Your task to perform on an android device: What's the weather today? Image 0: 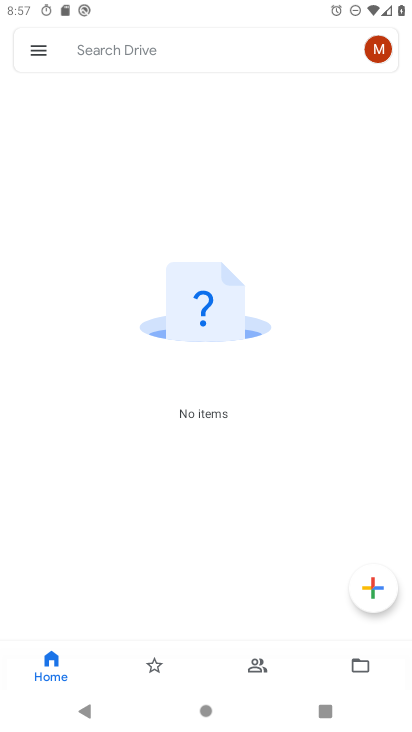
Step 0: press home button
Your task to perform on an android device: What's the weather today? Image 1: 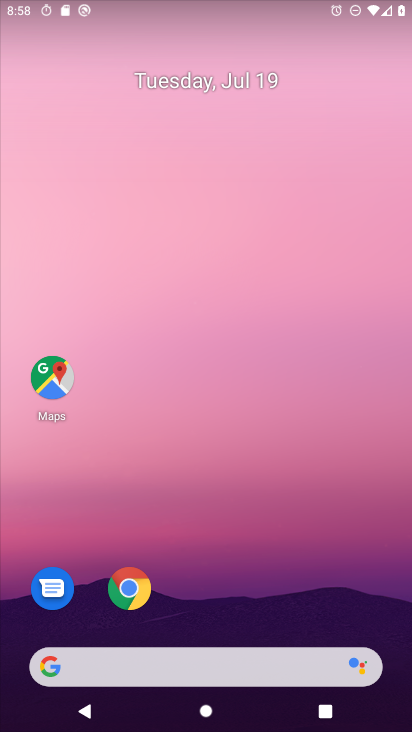
Step 1: drag from (270, 597) to (277, 190)
Your task to perform on an android device: What's the weather today? Image 2: 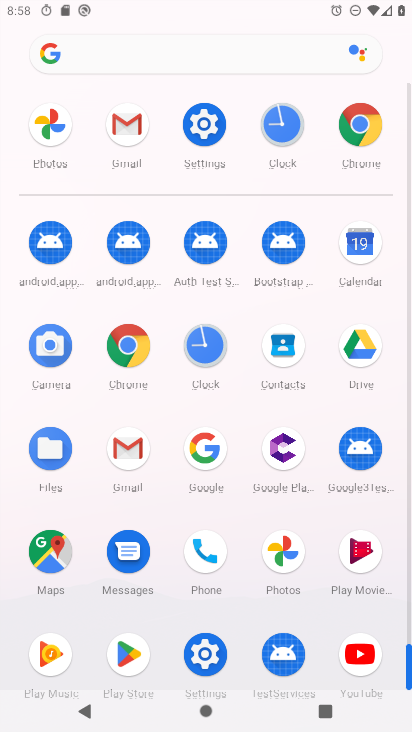
Step 2: click (129, 354)
Your task to perform on an android device: What's the weather today? Image 3: 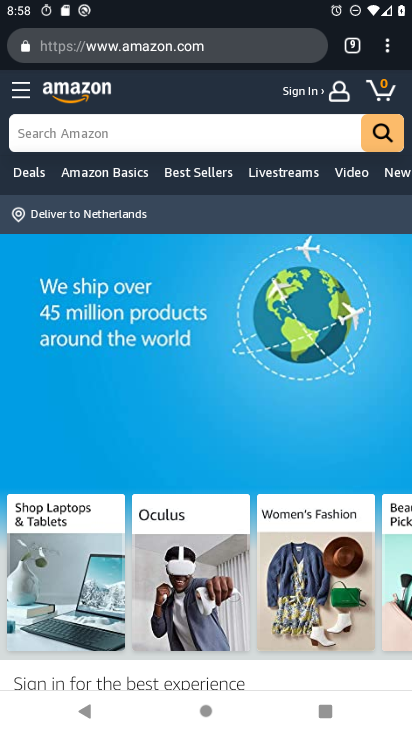
Step 3: click (354, 51)
Your task to perform on an android device: What's the weather today? Image 4: 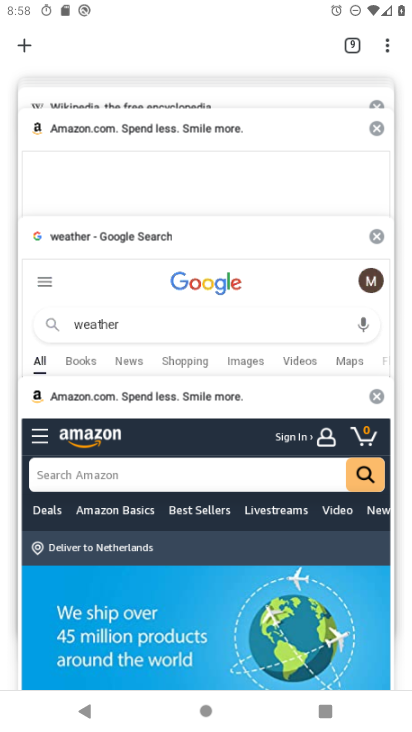
Step 4: drag from (124, 160) to (152, 234)
Your task to perform on an android device: What's the weather today? Image 5: 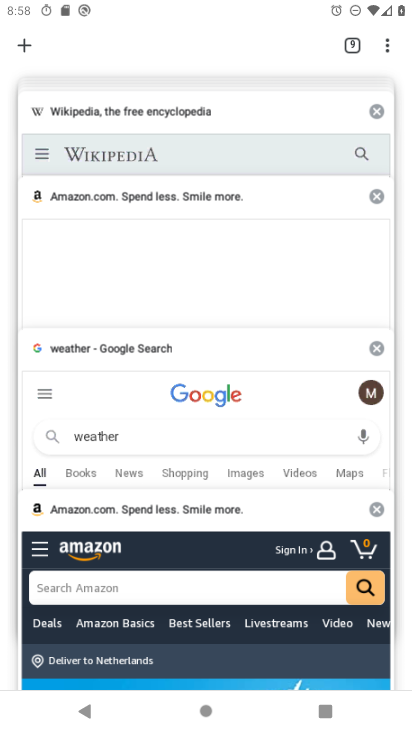
Step 5: click (124, 433)
Your task to perform on an android device: What's the weather today? Image 6: 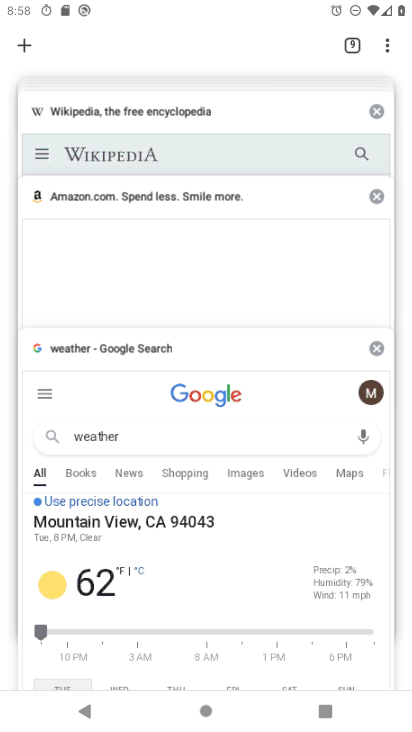
Step 6: click (144, 398)
Your task to perform on an android device: What's the weather today? Image 7: 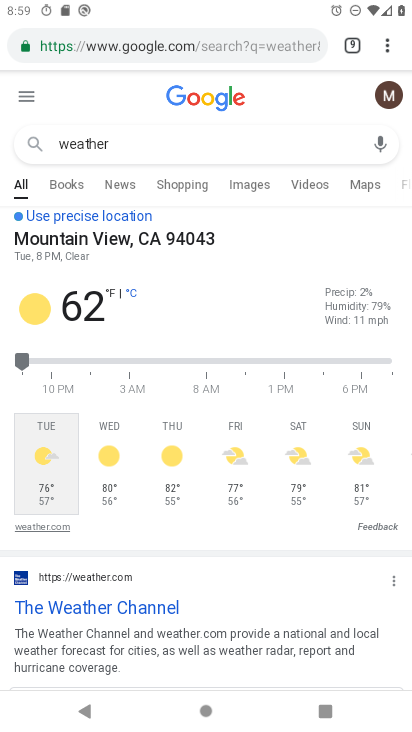
Step 7: task complete